Your task to perform on an android device: Go to Amazon Image 0: 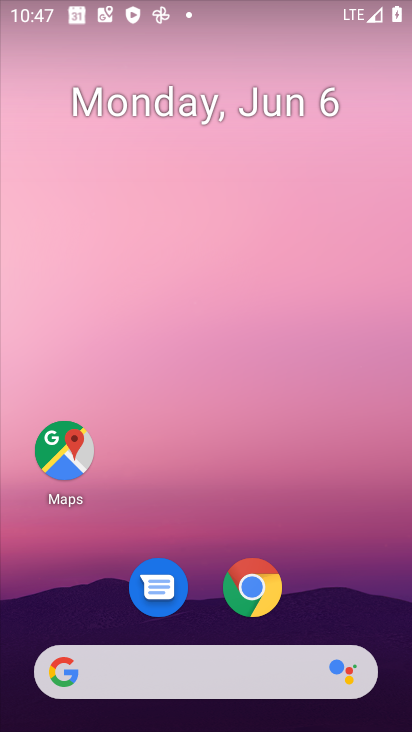
Step 0: click (254, 581)
Your task to perform on an android device: Go to Amazon Image 1: 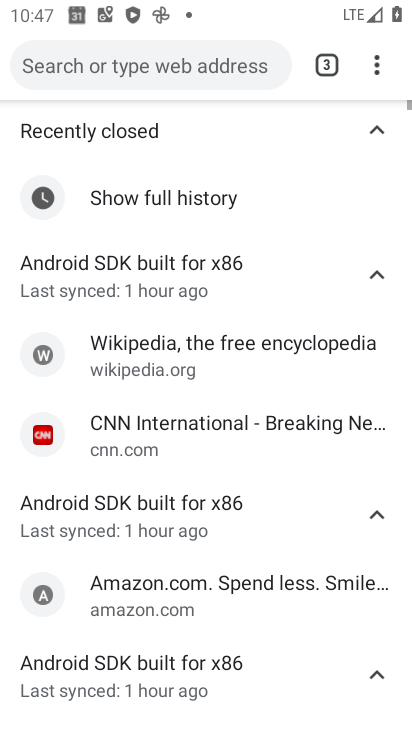
Step 1: click (373, 66)
Your task to perform on an android device: Go to Amazon Image 2: 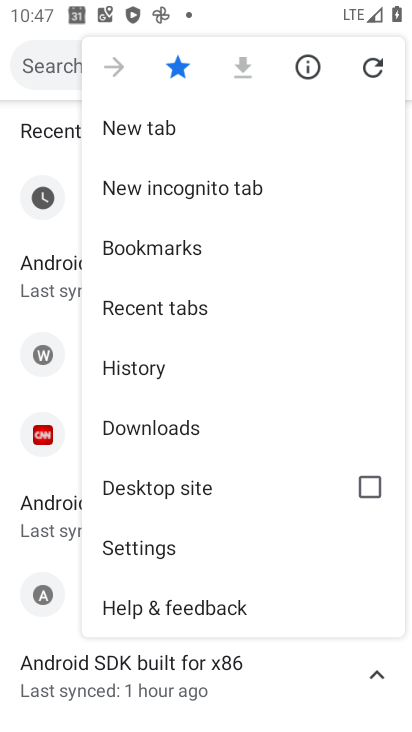
Step 2: click (197, 132)
Your task to perform on an android device: Go to Amazon Image 3: 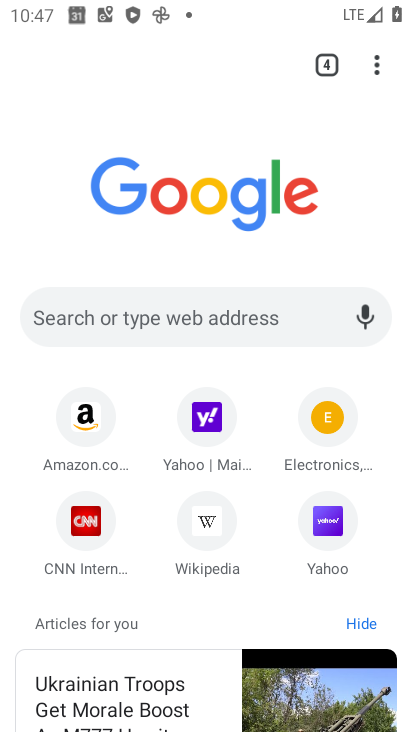
Step 3: click (83, 433)
Your task to perform on an android device: Go to Amazon Image 4: 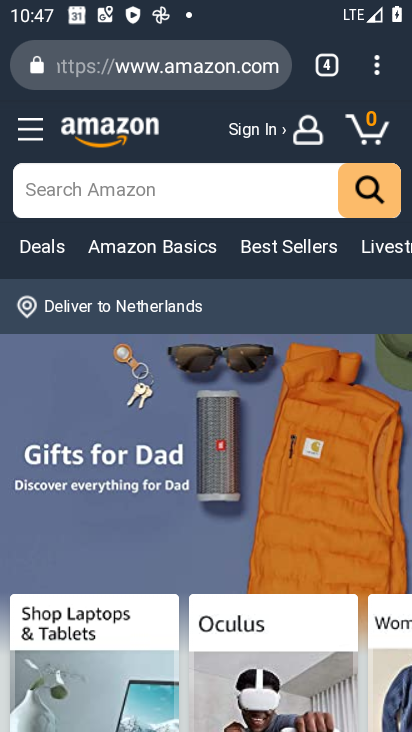
Step 4: task complete